Your task to perform on an android device: toggle notification dots Image 0: 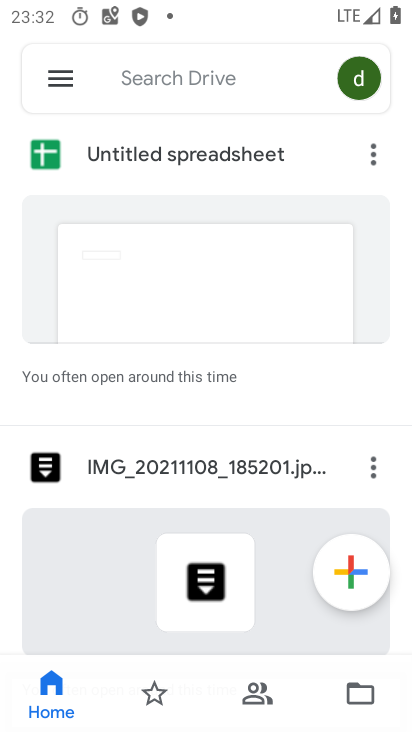
Step 0: press home button
Your task to perform on an android device: toggle notification dots Image 1: 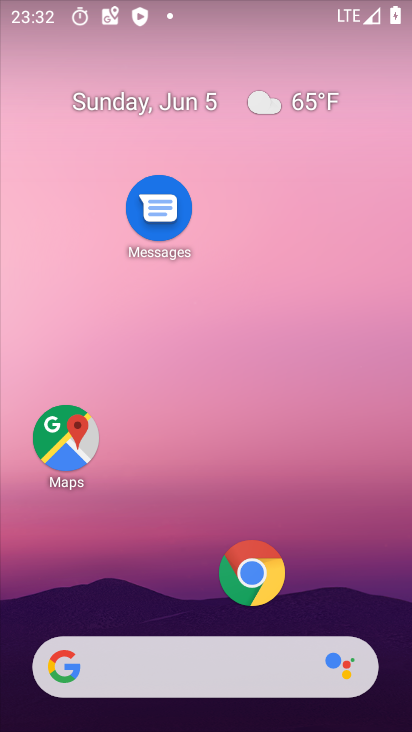
Step 1: drag from (207, 642) to (168, 137)
Your task to perform on an android device: toggle notification dots Image 2: 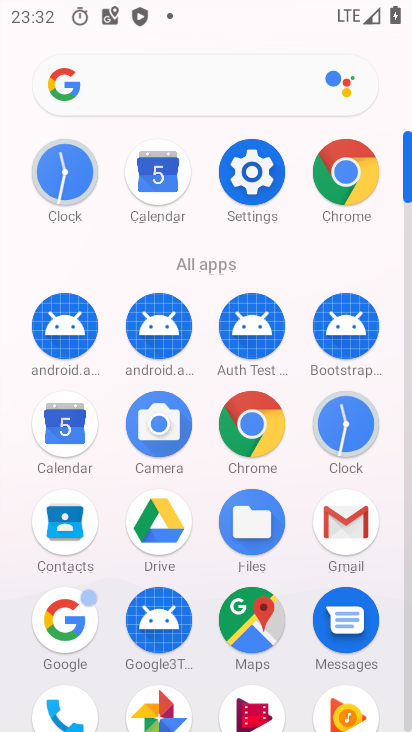
Step 2: click (249, 160)
Your task to perform on an android device: toggle notification dots Image 3: 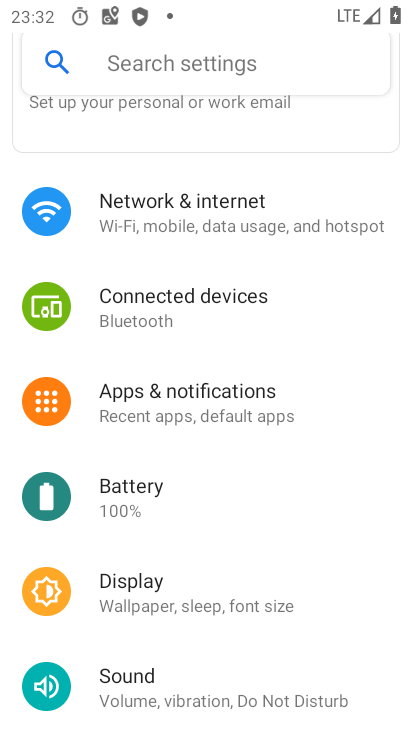
Step 3: click (133, 394)
Your task to perform on an android device: toggle notification dots Image 4: 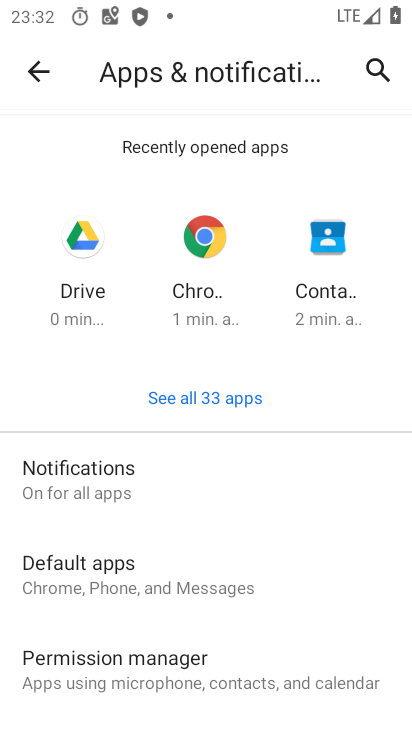
Step 4: click (67, 494)
Your task to perform on an android device: toggle notification dots Image 5: 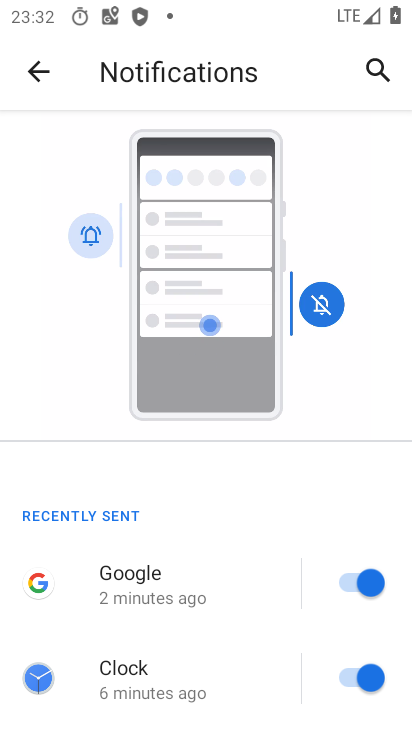
Step 5: drag from (187, 521) to (196, 99)
Your task to perform on an android device: toggle notification dots Image 6: 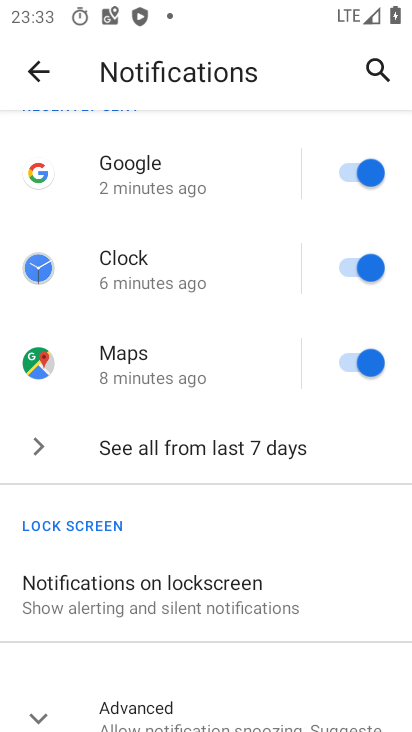
Step 6: drag from (176, 633) to (163, 183)
Your task to perform on an android device: toggle notification dots Image 7: 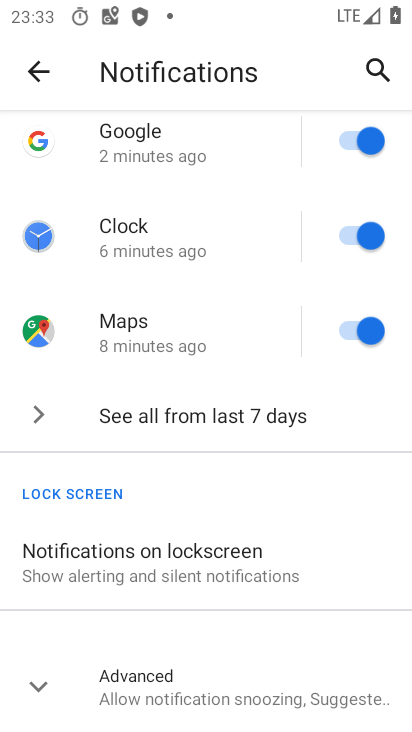
Step 7: click (148, 668)
Your task to perform on an android device: toggle notification dots Image 8: 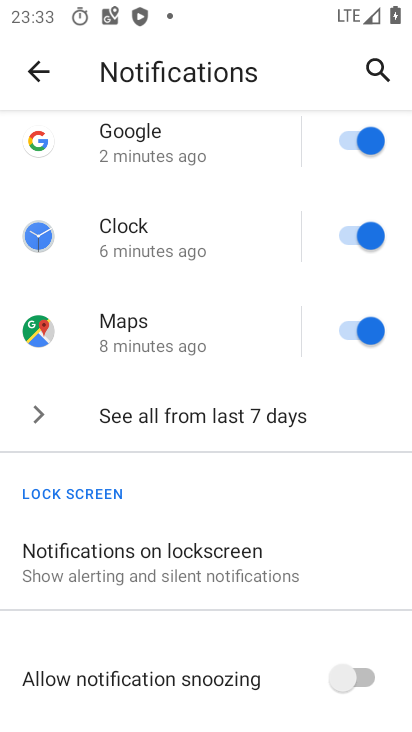
Step 8: drag from (143, 646) to (93, 47)
Your task to perform on an android device: toggle notification dots Image 9: 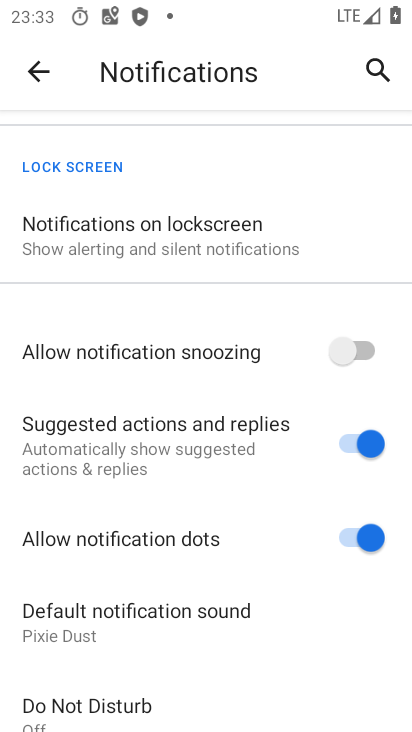
Step 9: click (370, 541)
Your task to perform on an android device: toggle notification dots Image 10: 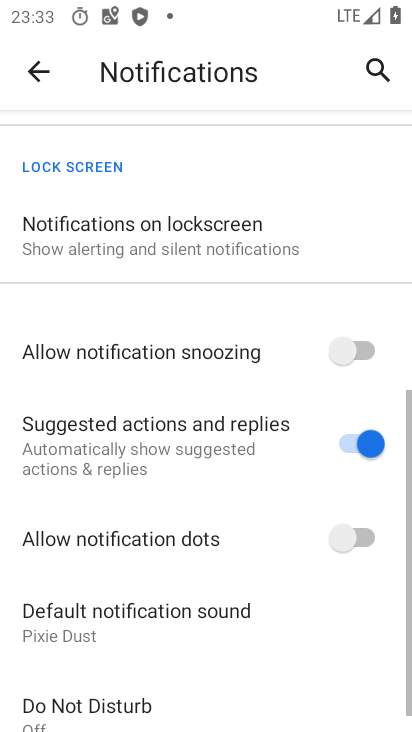
Step 10: task complete